Your task to perform on an android device: turn notification dots on Image 0: 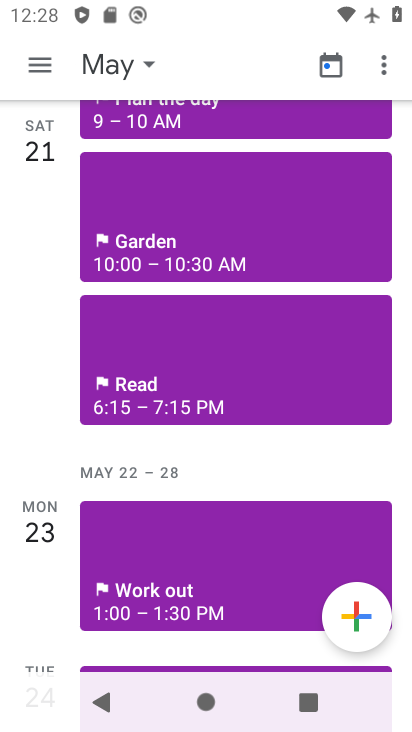
Step 0: press home button
Your task to perform on an android device: turn notification dots on Image 1: 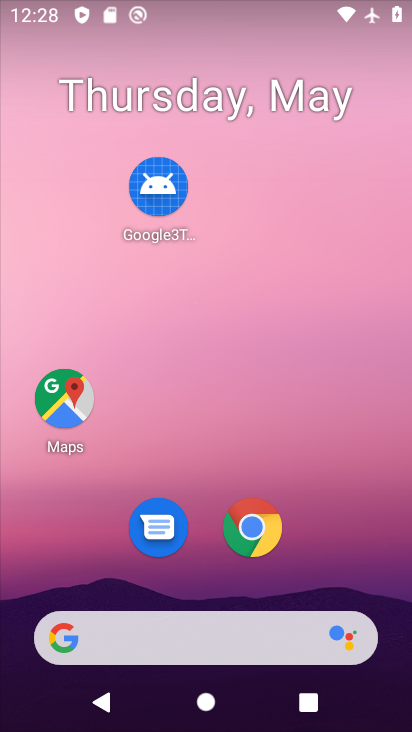
Step 1: drag from (201, 583) to (307, 80)
Your task to perform on an android device: turn notification dots on Image 2: 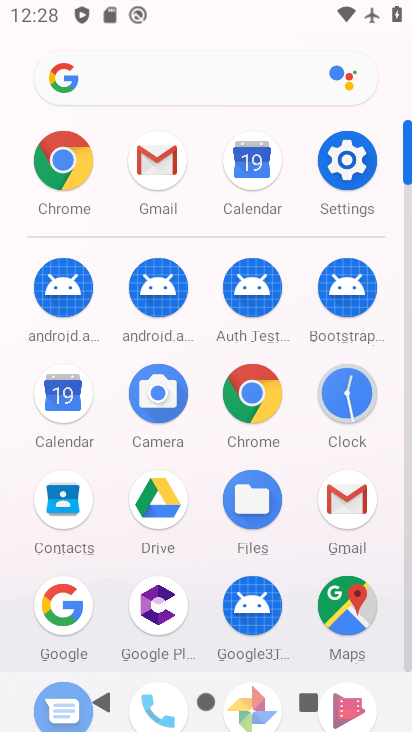
Step 2: click (346, 156)
Your task to perform on an android device: turn notification dots on Image 3: 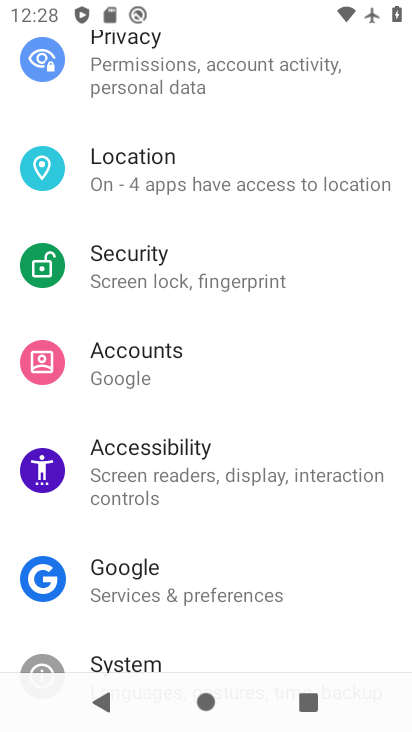
Step 3: drag from (174, 116) to (185, 600)
Your task to perform on an android device: turn notification dots on Image 4: 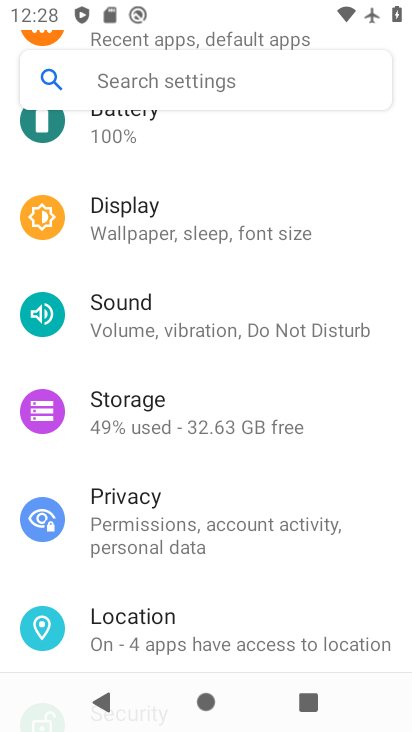
Step 4: drag from (186, 156) to (212, 565)
Your task to perform on an android device: turn notification dots on Image 5: 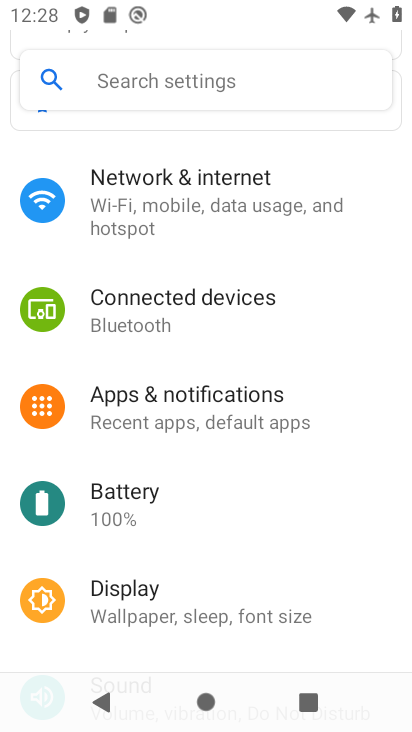
Step 5: click (195, 409)
Your task to perform on an android device: turn notification dots on Image 6: 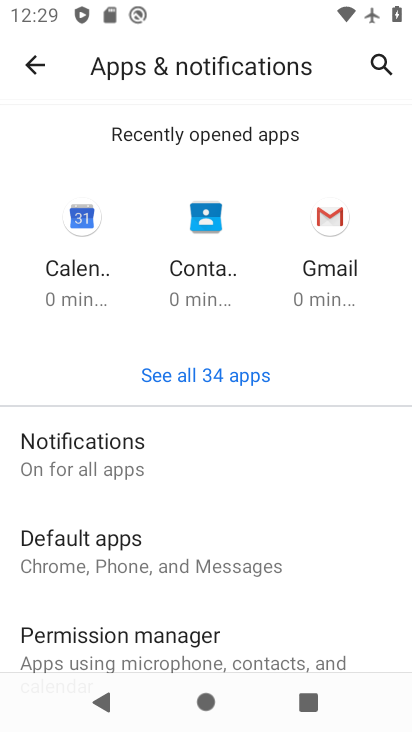
Step 6: click (159, 458)
Your task to perform on an android device: turn notification dots on Image 7: 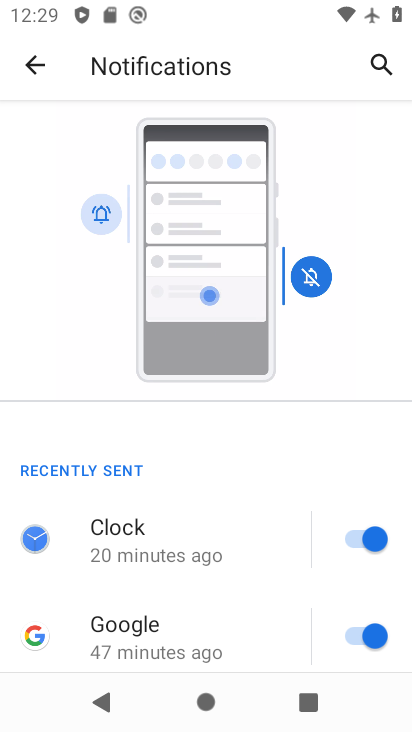
Step 7: drag from (217, 606) to (231, 290)
Your task to perform on an android device: turn notification dots on Image 8: 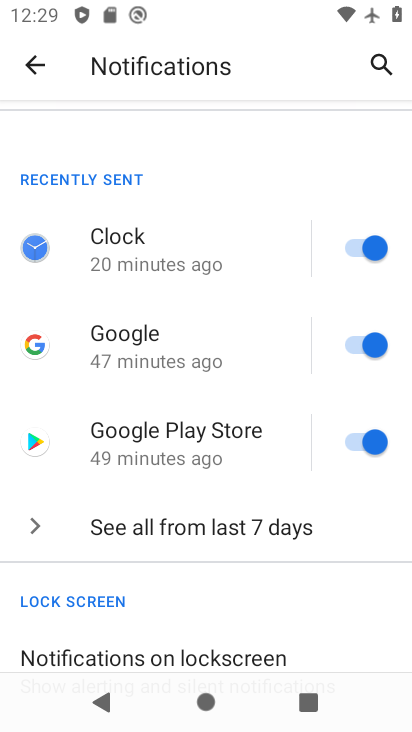
Step 8: drag from (248, 615) to (286, 274)
Your task to perform on an android device: turn notification dots on Image 9: 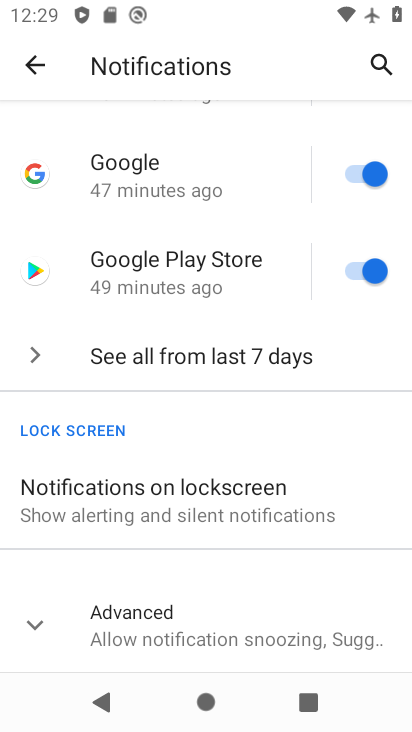
Step 9: click (176, 622)
Your task to perform on an android device: turn notification dots on Image 10: 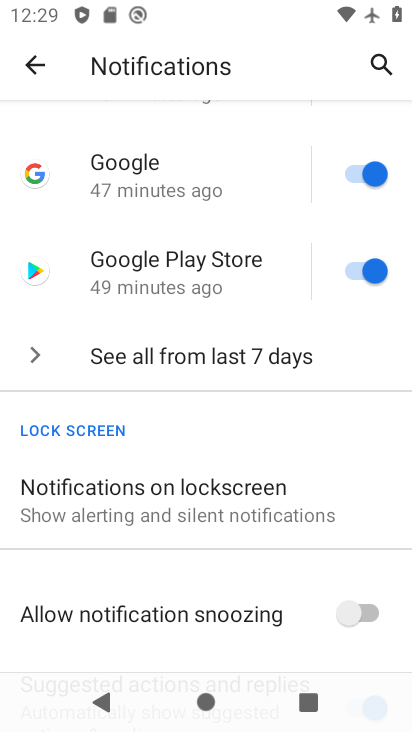
Step 10: task complete